Your task to perform on an android device: change your default location settings in chrome Image 0: 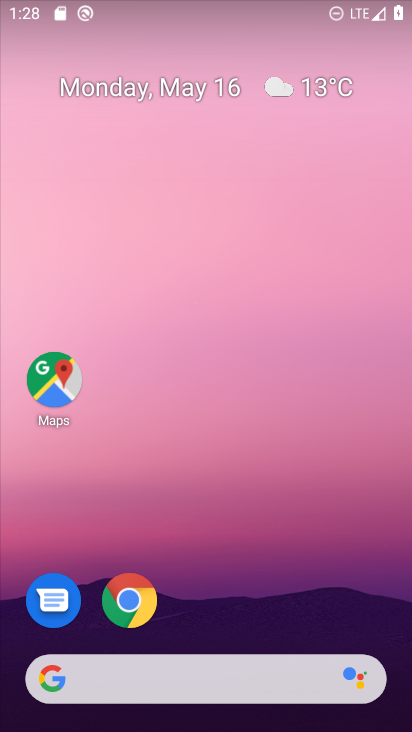
Step 0: drag from (225, 632) to (232, 58)
Your task to perform on an android device: change your default location settings in chrome Image 1: 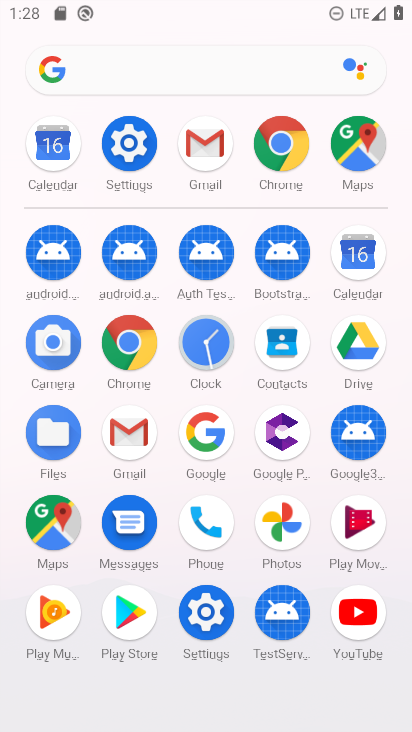
Step 1: click (278, 132)
Your task to perform on an android device: change your default location settings in chrome Image 2: 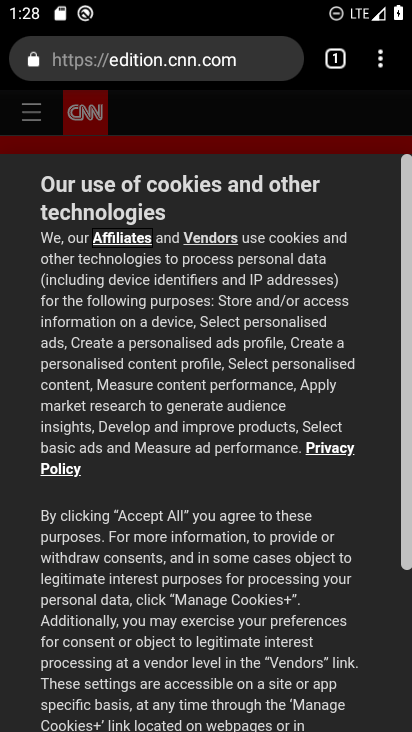
Step 2: drag from (220, 676) to (241, 111)
Your task to perform on an android device: change your default location settings in chrome Image 3: 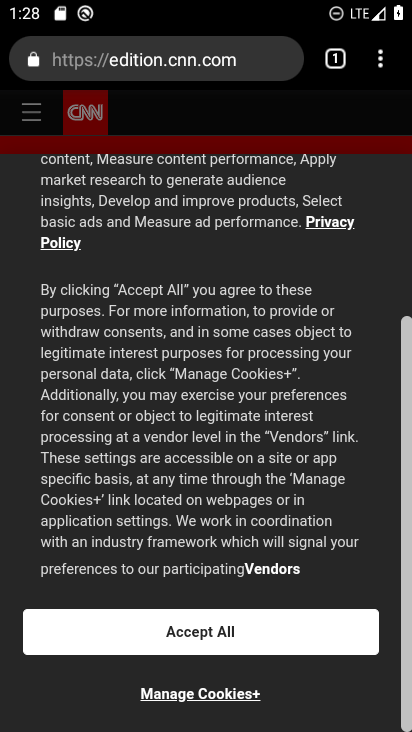
Step 3: click (382, 54)
Your task to perform on an android device: change your default location settings in chrome Image 4: 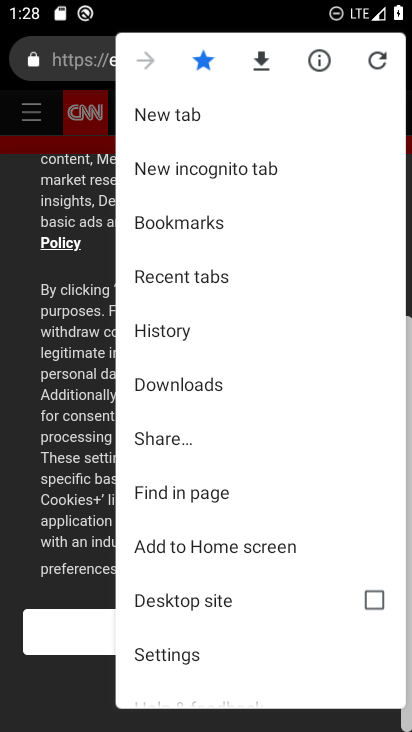
Step 4: click (213, 652)
Your task to perform on an android device: change your default location settings in chrome Image 5: 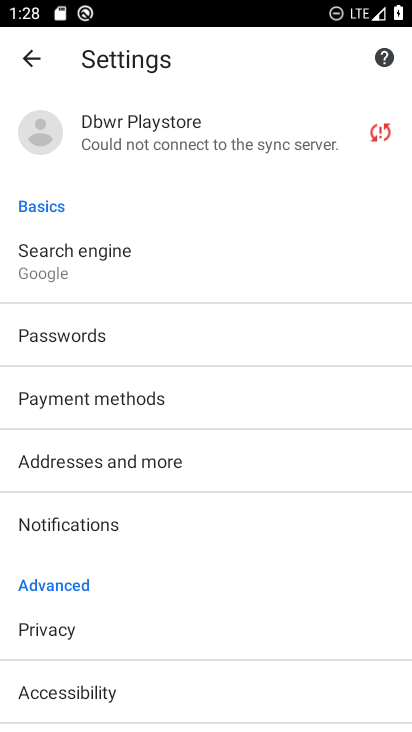
Step 5: drag from (198, 661) to (203, 231)
Your task to perform on an android device: change your default location settings in chrome Image 6: 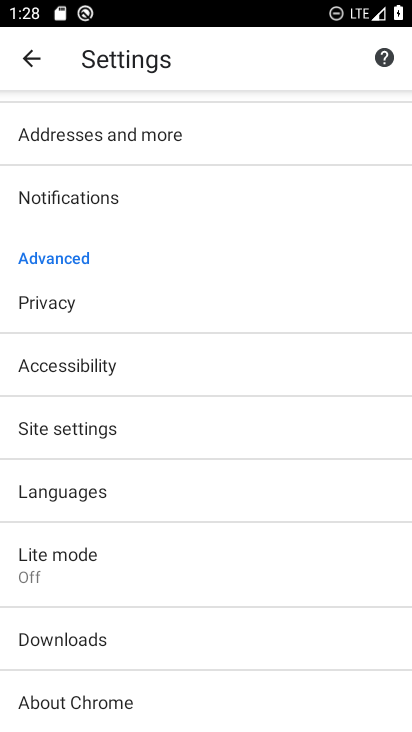
Step 6: click (145, 422)
Your task to perform on an android device: change your default location settings in chrome Image 7: 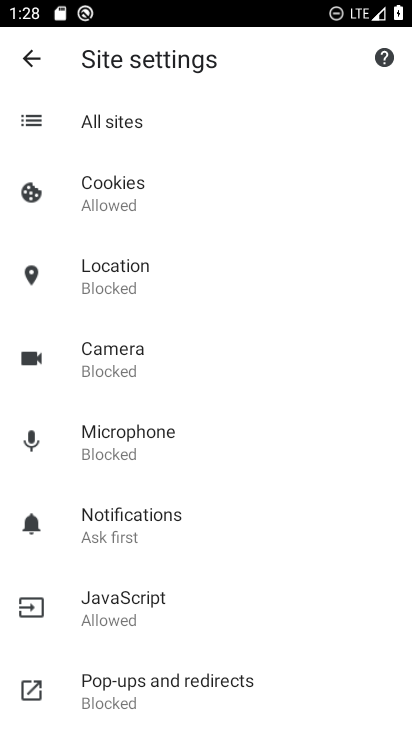
Step 7: click (158, 277)
Your task to perform on an android device: change your default location settings in chrome Image 8: 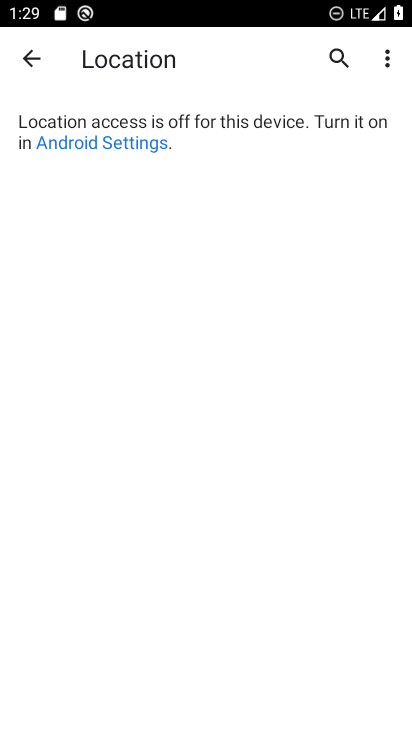
Step 8: task complete